Your task to perform on an android device: Go to wifi settings Image 0: 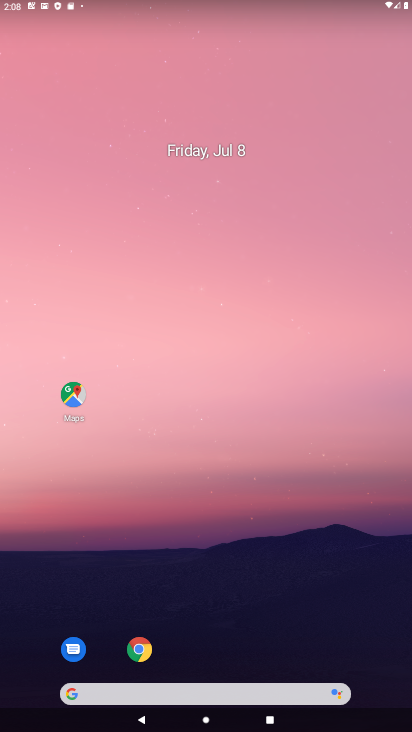
Step 0: drag from (378, 667) to (362, 79)
Your task to perform on an android device: Go to wifi settings Image 1: 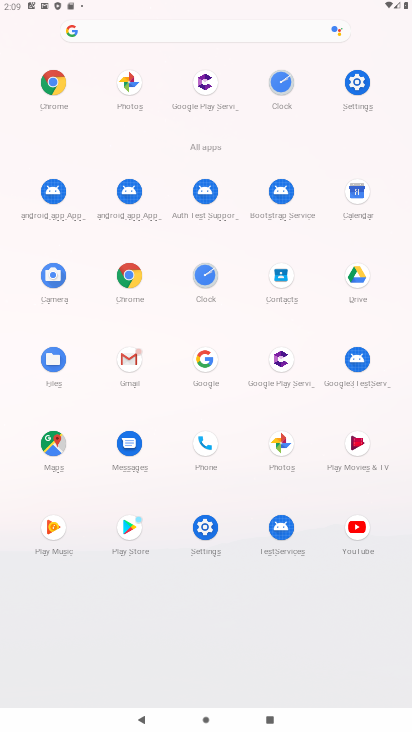
Step 1: click (207, 529)
Your task to perform on an android device: Go to wifi settings Image 2: 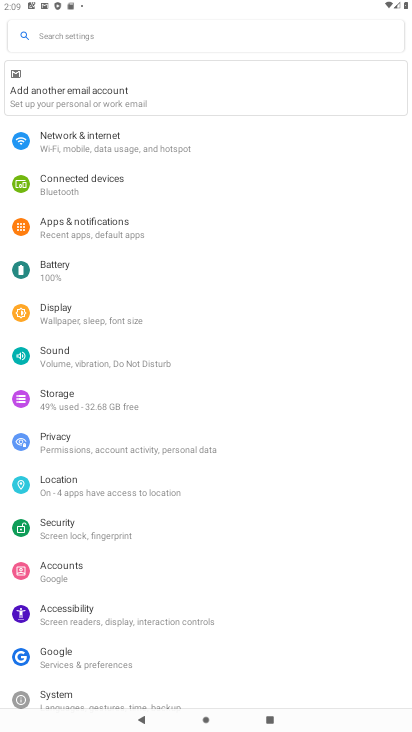
Step 2: click (75, 137)
Your task to perform on an android device: Go to wifi settings Image 3: 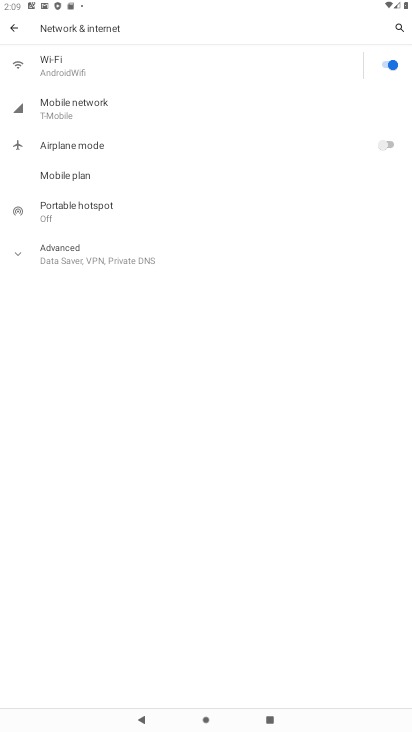
Step 3: click (41, 64)
Your task to perform on an android device: Go to wifi settings Image 4: 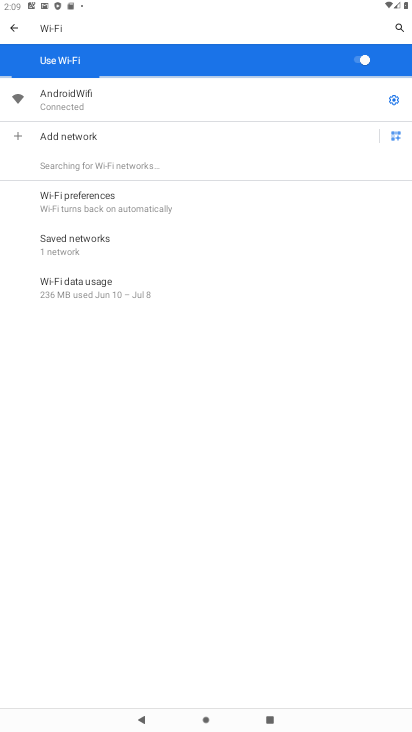
Step 4: task complete